Your task to perform on an android device: open app "Facebook Lite" (install if not already installed), go to login, and select forgot password Image 0: 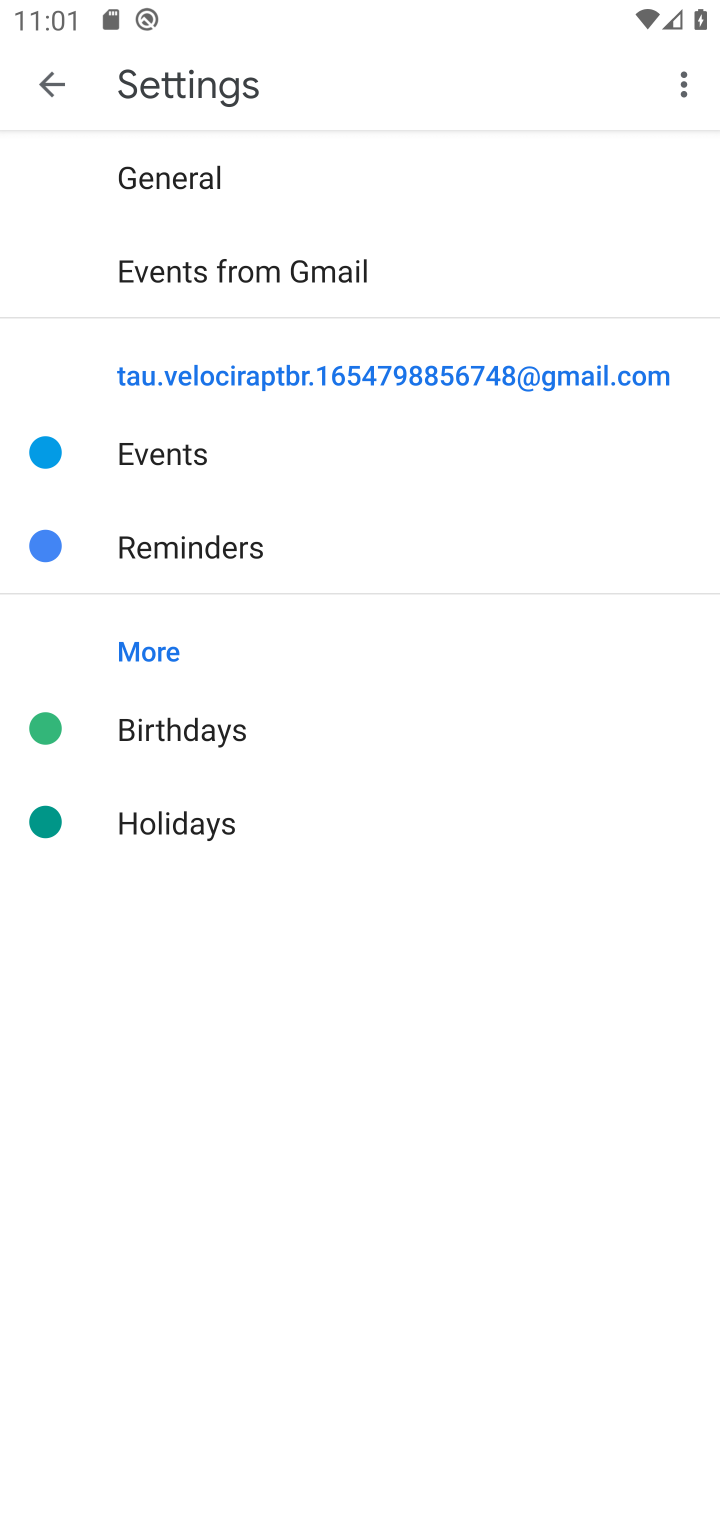
Step 0: press home button
Your task to perform on an android device: open app "Facebook Lite" (install if not already installed), go to login, and select forgot password Image 1: 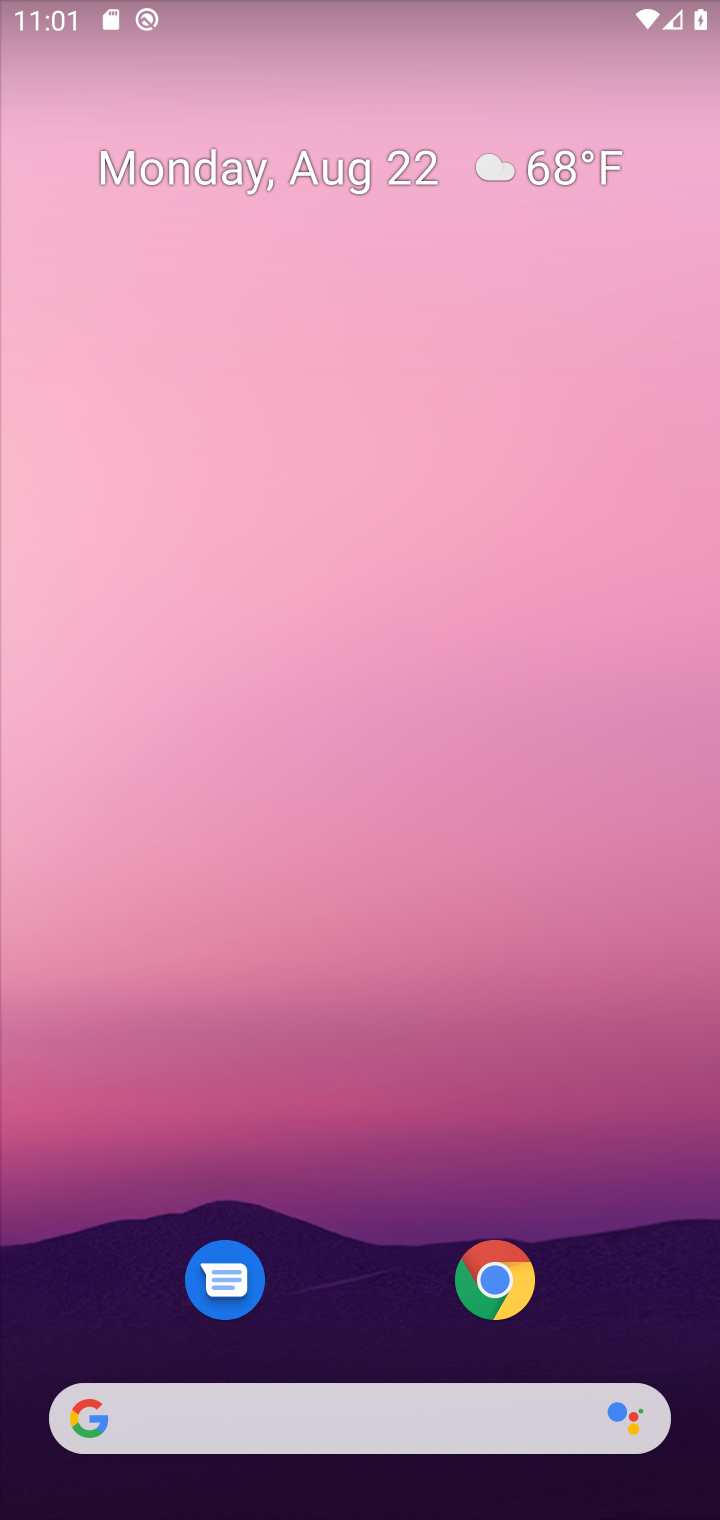
Step 1: drag from (334, 1290) to (265, 291)
Your task to perform on an android device: open app "Facebook Lite" (install if not already installed), go to login, and select forgot password Image 2: 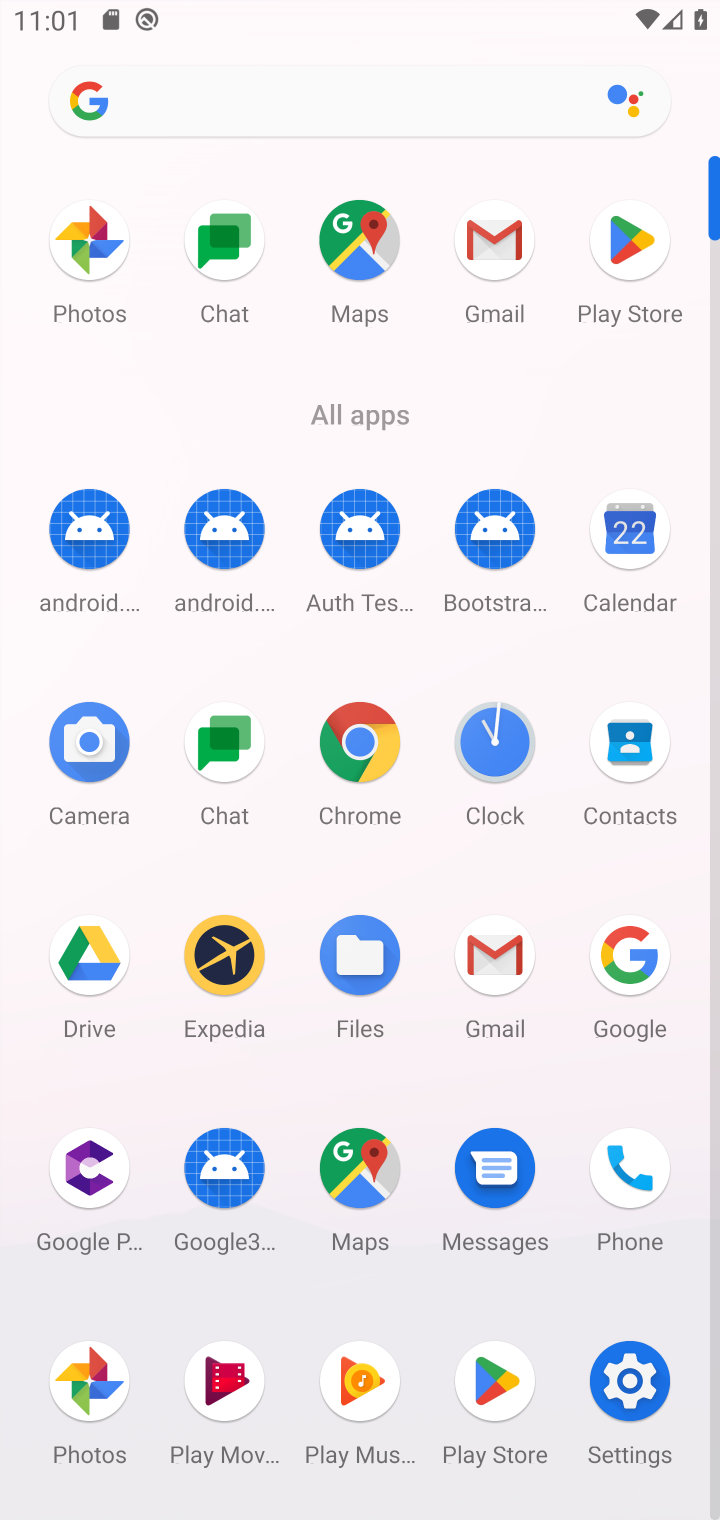
Step 2: click (611, 233)
Your task to perform on an android device: open app "Facebook Lite" (install if not already installed), go to login, and select forgot password Image 3: 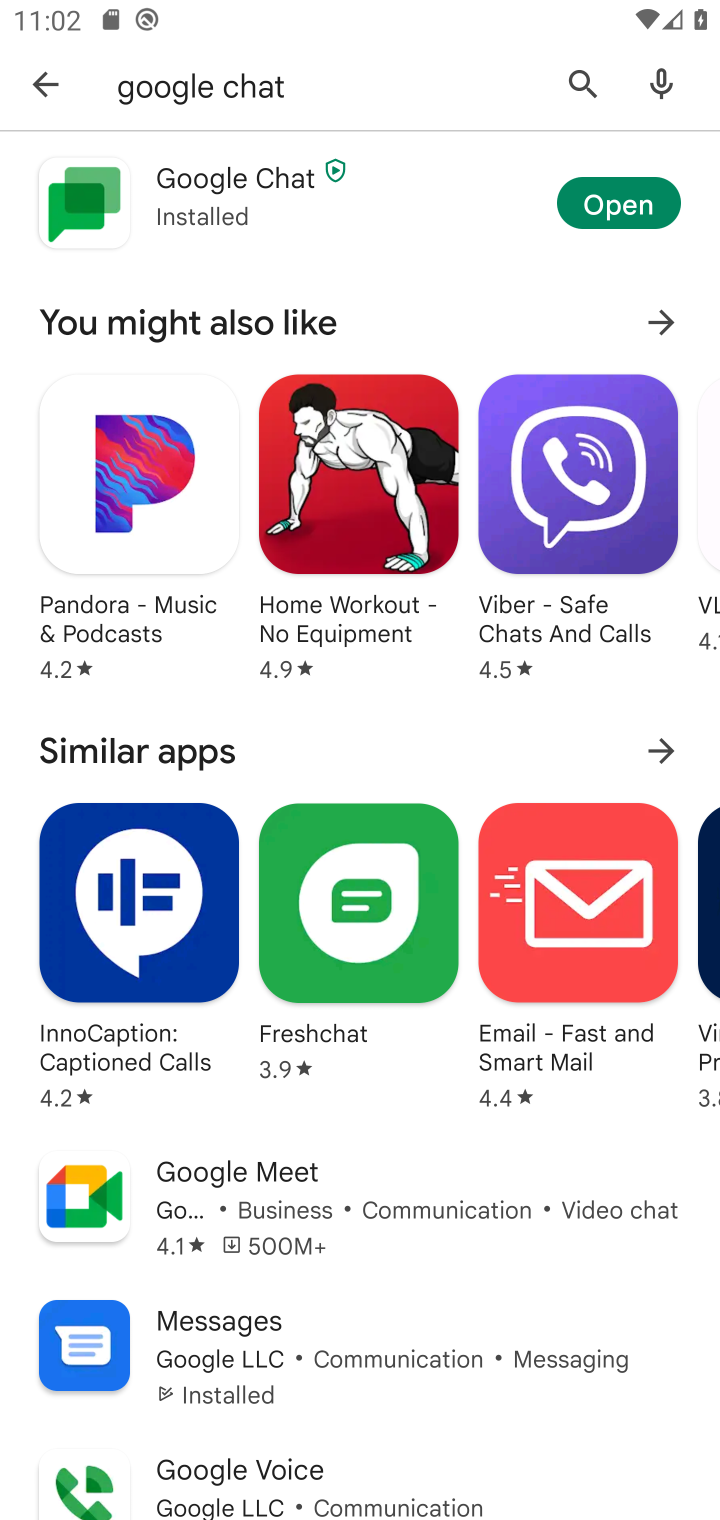
Step 3: click (575, 81)
Your task to perform on an android device: open app "Facebook Lite" (install if not already installed), go to login, and select forgot password Image 4: 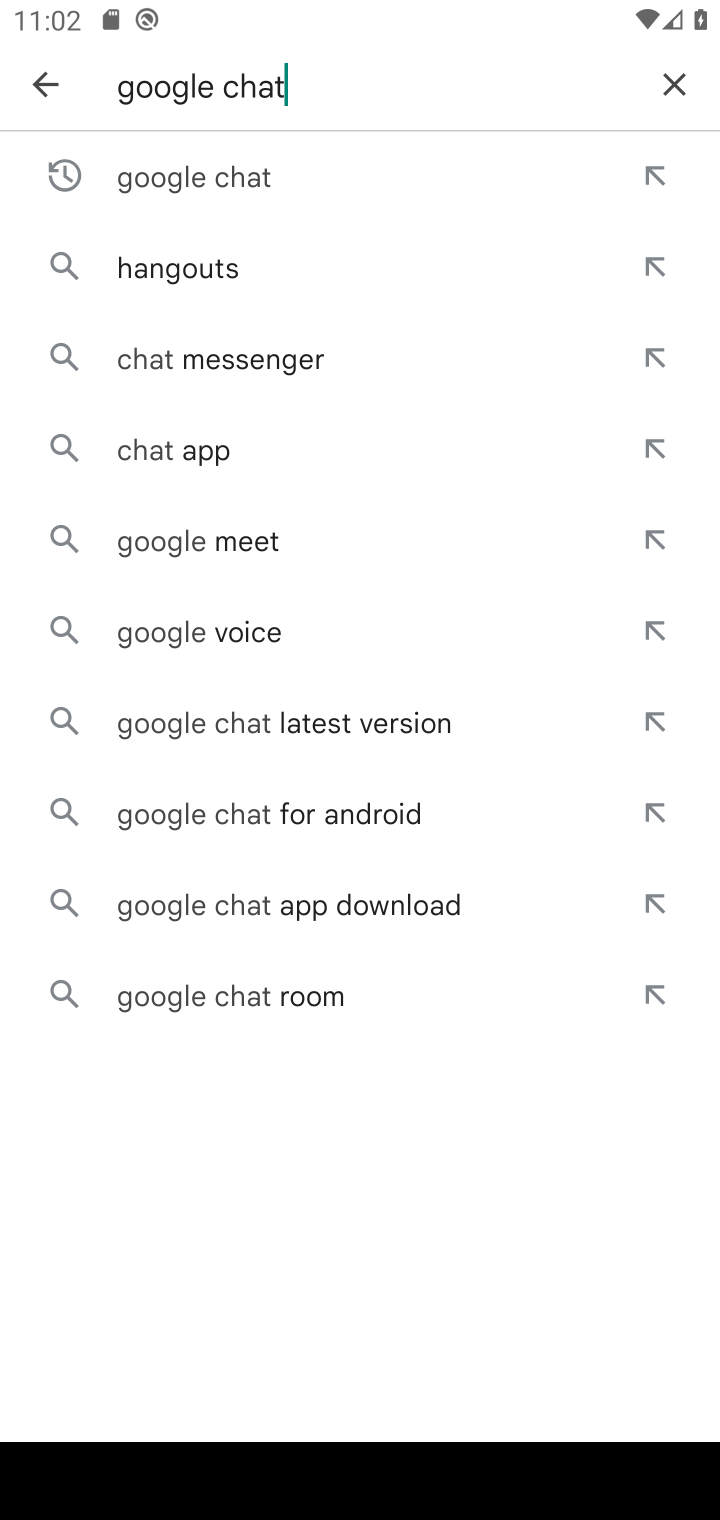
Step 4: click (666, 90)
Your task to perform on an android device: open app "Facebook Lite" (install if not already installed), go to login, and select forgot password Image 5: 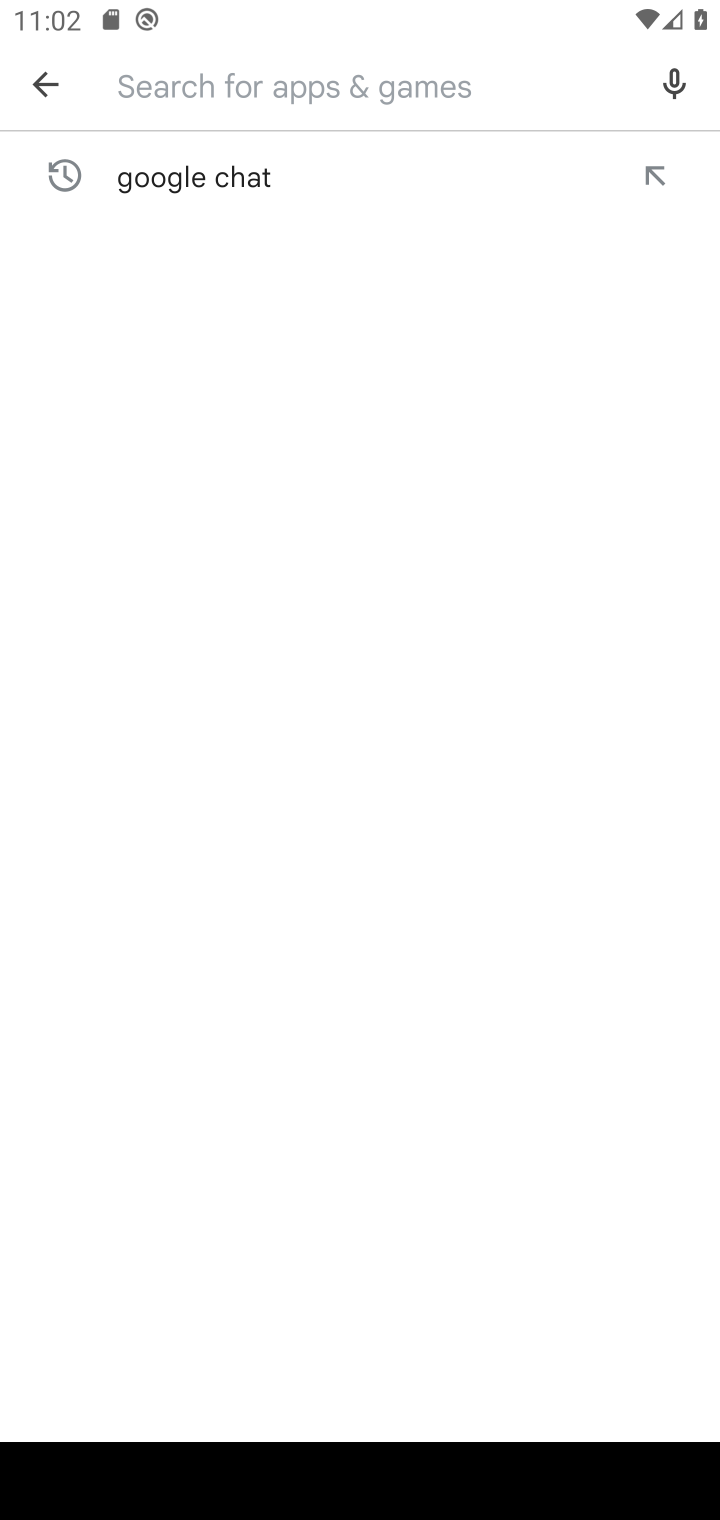
Step 5: type "Facebook Lite"
Your task to perform on an android device: open app "Facebook Lite" (install if not already installed), go to login, and select forgot password Image 6: 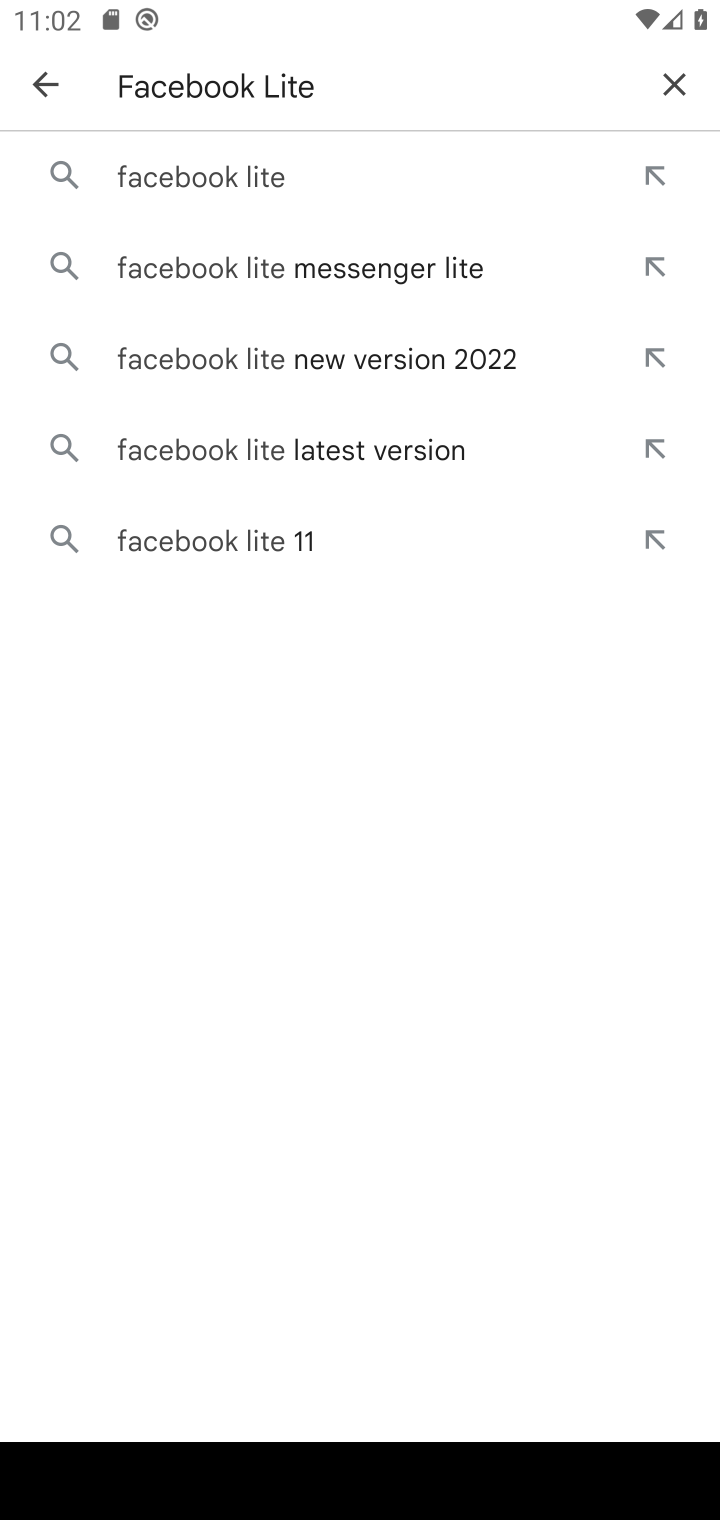
Step 6: click (270, 195)
Your task to perform on an android device: open app "Facebook Lite" (install if not already installed), go to login, and select forgot password Image 7: 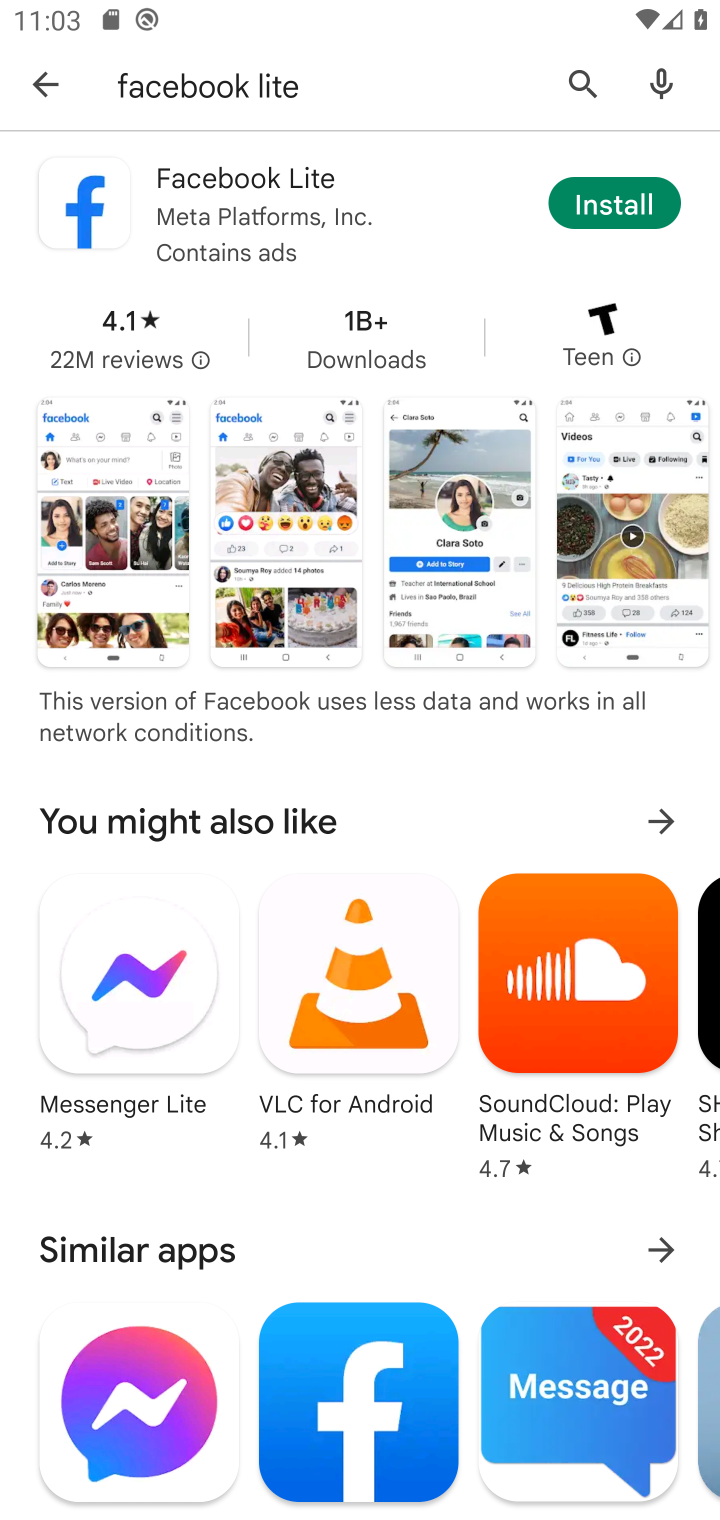
Step 7: click (571, 185)
Your task to perform on an android device: open app "Facebook Lite" (install if not already installed), go to login, and select forgot password Image 8: 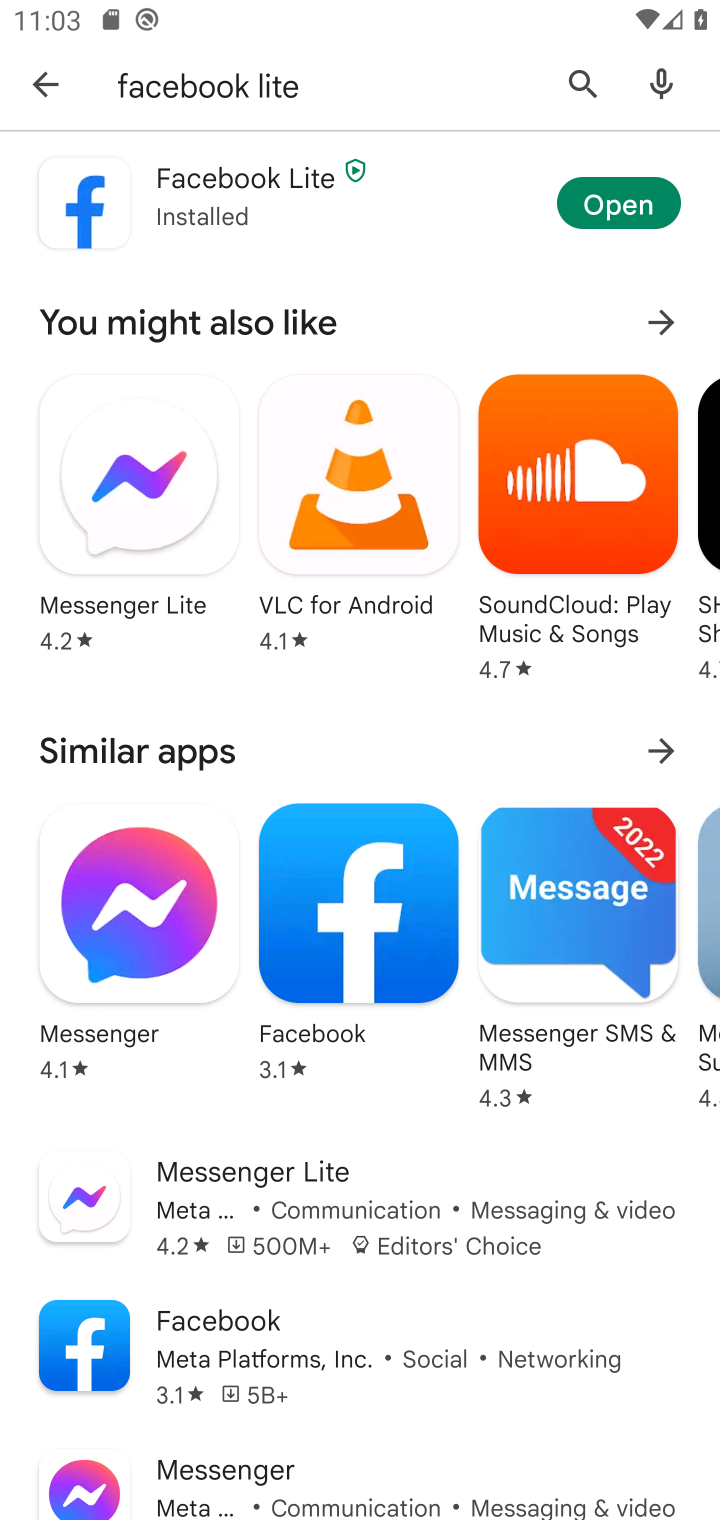
Step 8: click (608, 194)
Your task to perform on an android device: open app "Facebook Lite" (install if not already installed), go to login, and select forgot password Image 9: 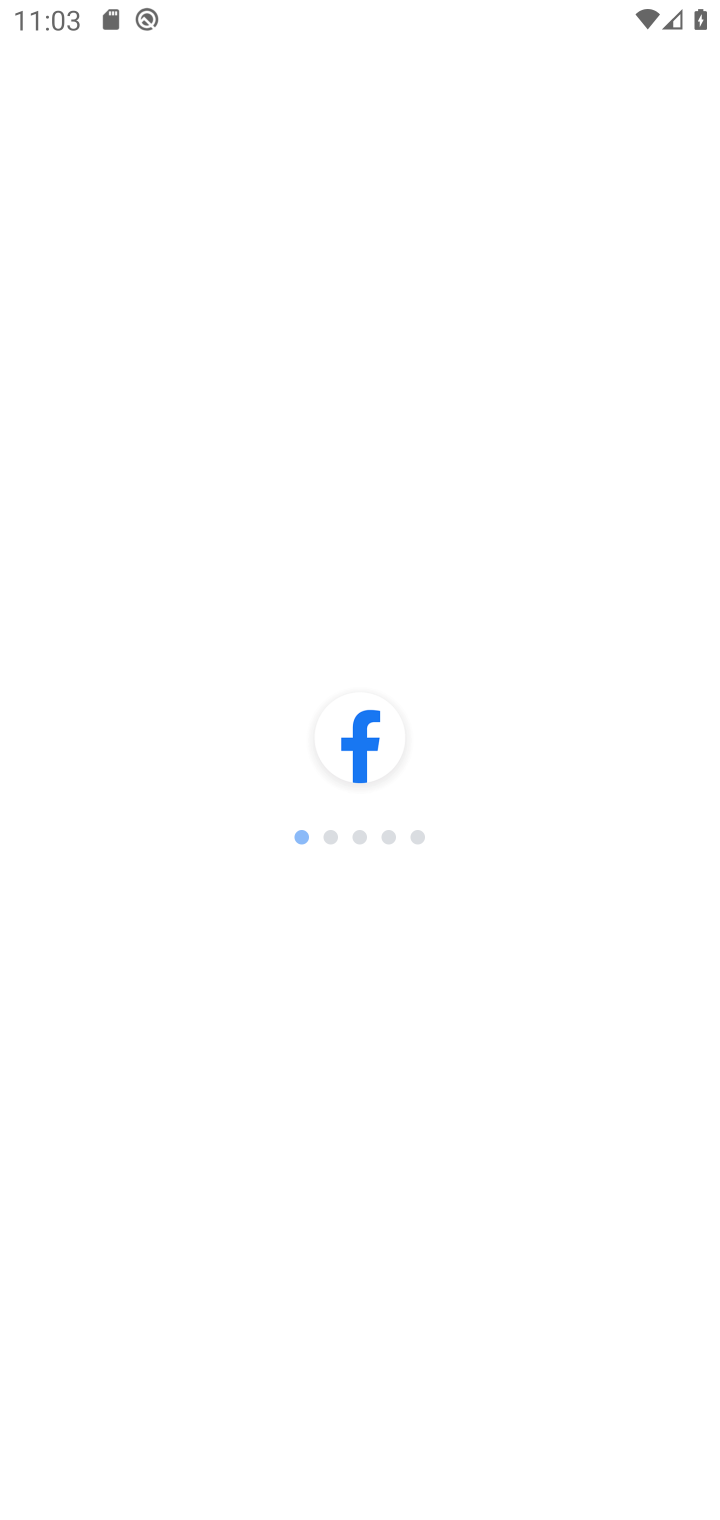
Step 9: task complete